Your task to perform on an android device: turn off notifications in google photos Image 0: 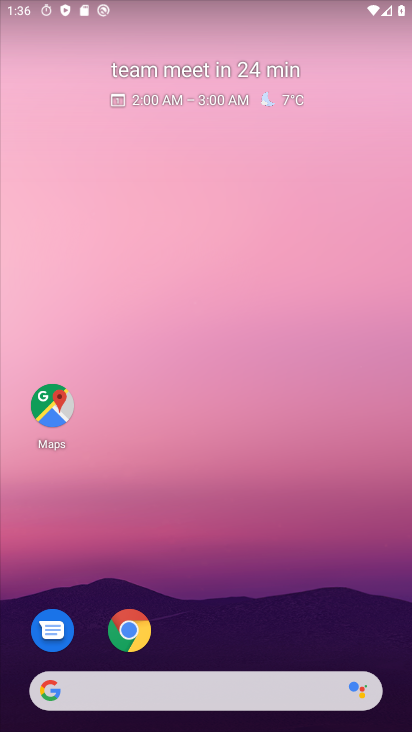
Step 0: drag from (190, 684) to (194, 266)
Your task to perform on an android device: turn off notifications in google photos Image 1: 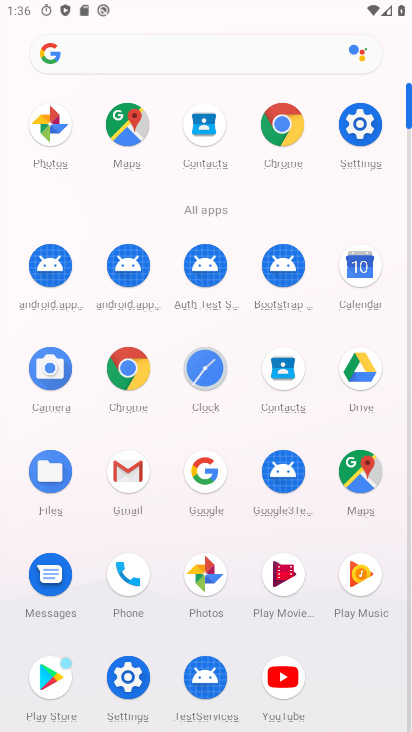
Step 1: click (211, 567)
Your task to perform on an android device: turn off notifications in google photos Image 2: 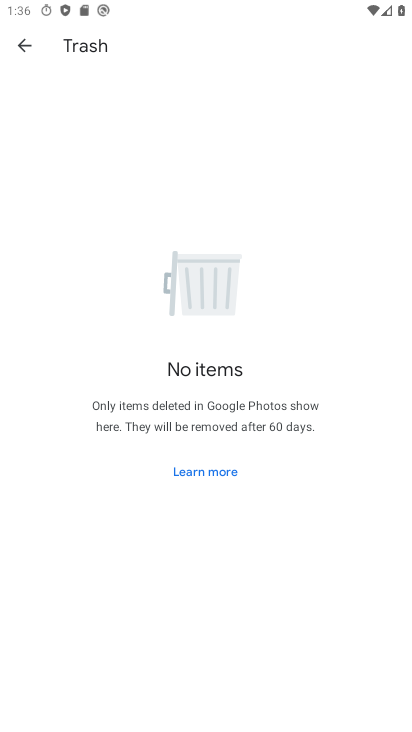
Step 2: press home button
Your task to perform on an android device: turn off notifications in google photos Image 3: 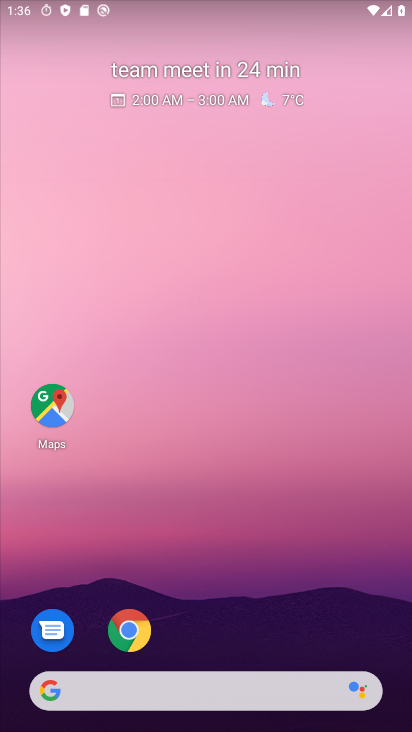
Step 3: drag from (210, 694) to (199, 232)
Your task to perform on an android device: turn off notifications in google photos Image 4: 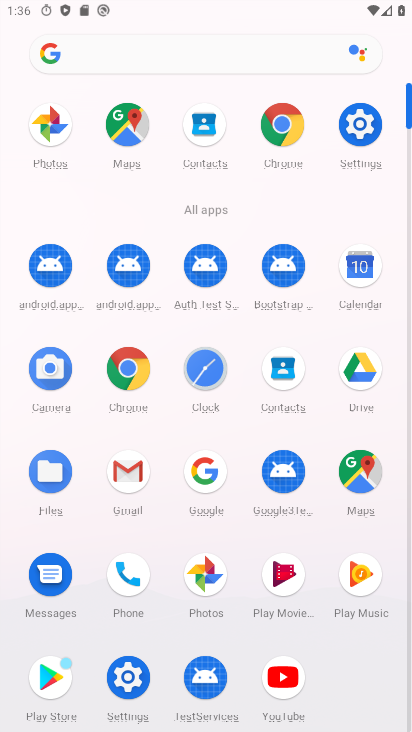
Step 4: click (208, 556)
Your task to perform on an android device: turn off notifications in google photos Image 5: 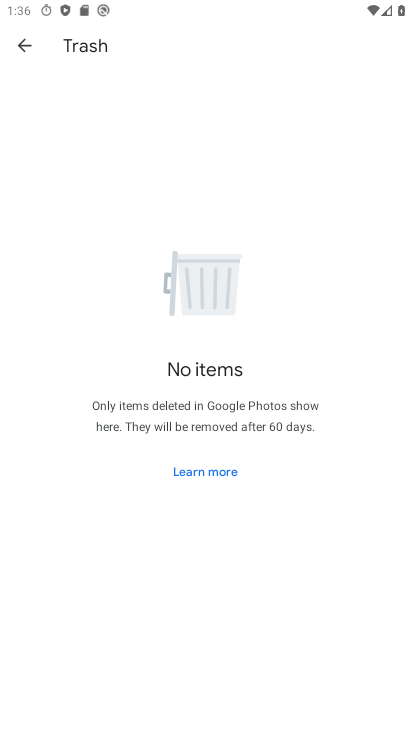
Step 5: click (19, 41)
Your task to perform on an android device: turn off notifications in google photos Image 6: 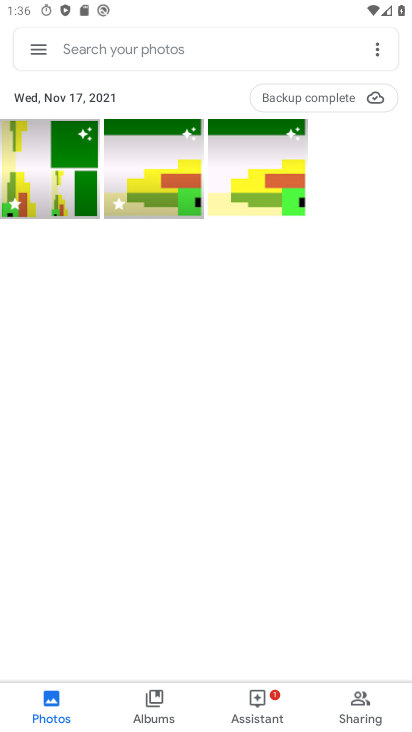
Step 6: click (32, 49)
Your task to perform on an android device: turn off notifications in google photos Image 7: 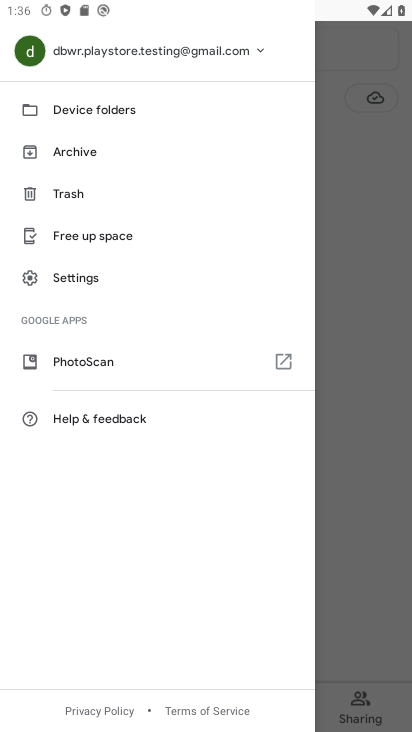
Step 7: click (63, 281)
Your task to perform on an android device: turn off notifications in google photos Image 8: 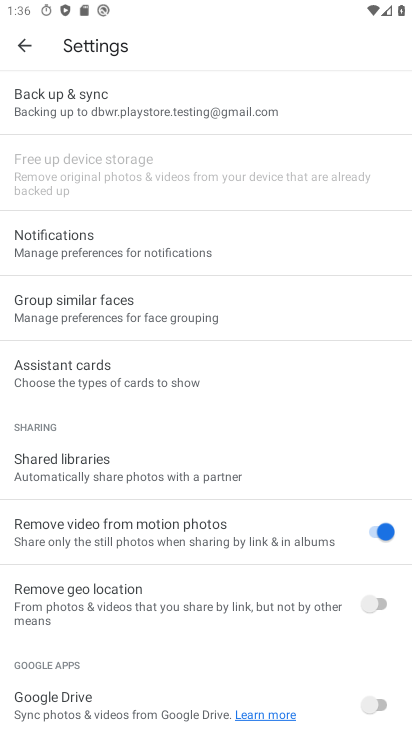
Step 8: click (81, 248)
Your task to perform on an android device: turn off notifications in google photos Image 9: 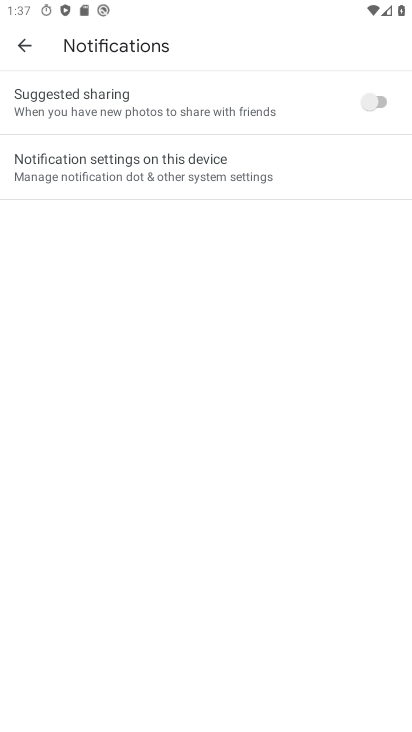
Step 9: click (273, 175)
Your task to perform on an android device: turn off notifications in google photos Image 10: 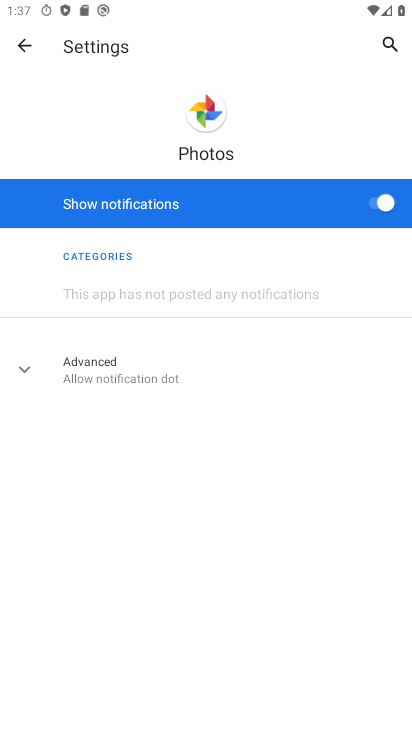
Step 10: click (382, 207)
Your task to perform on an android device: turn off notifications in google photos Image 11: 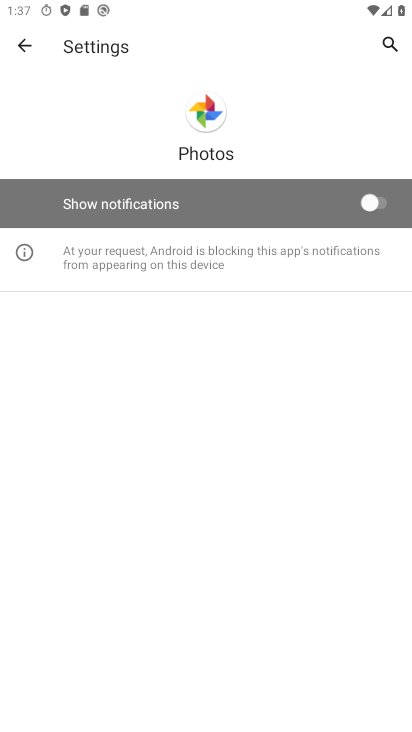
Step 11: task complete